Your task to perform on an android device: Search for sony triple a on walmart.com, select the first entry, add it to the cart, then select checkout. Image 0: 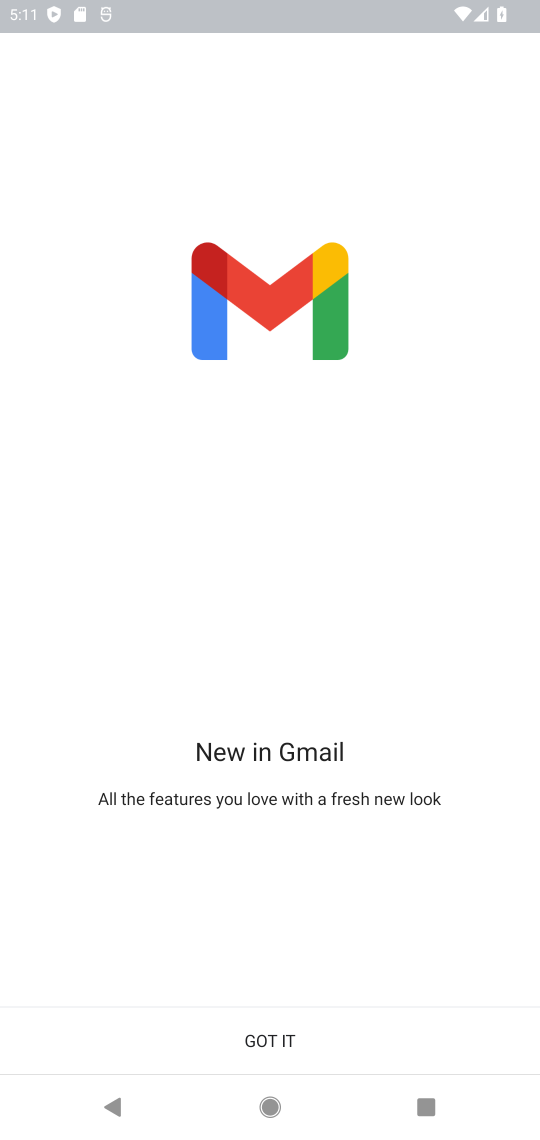
Step 0: press home button
Your task to perform on an android device: Search for sony triple a on walmart.com, select the first entry, add it to the cart, then select checkout. Image 1: 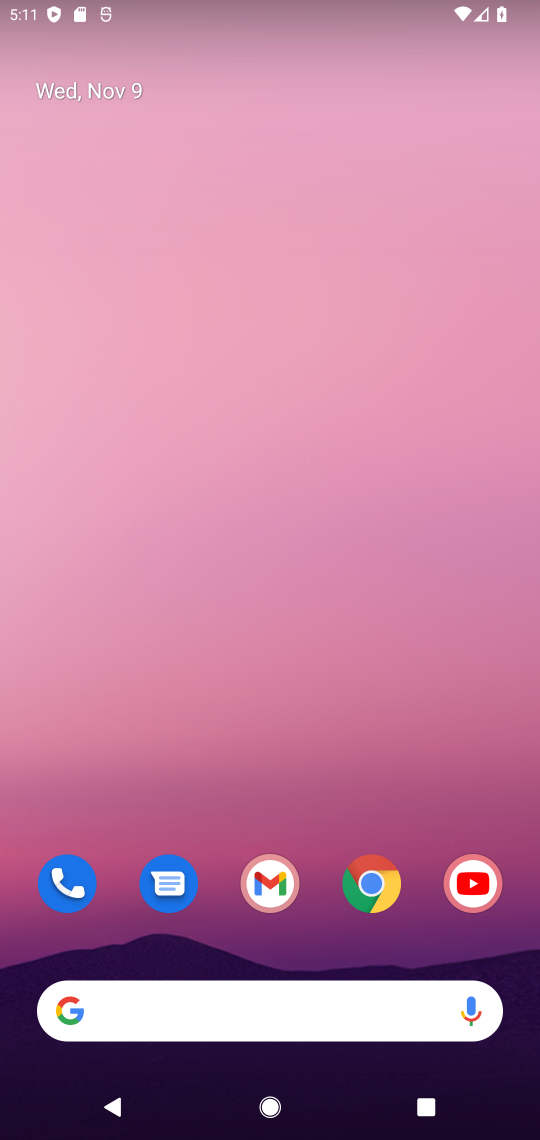
Step 1: click (343, 913)
Your task to perform on an android device: Search for sony triple a on walmart.com, select the first entry, add it to the cart, then select checkout. Image 2: 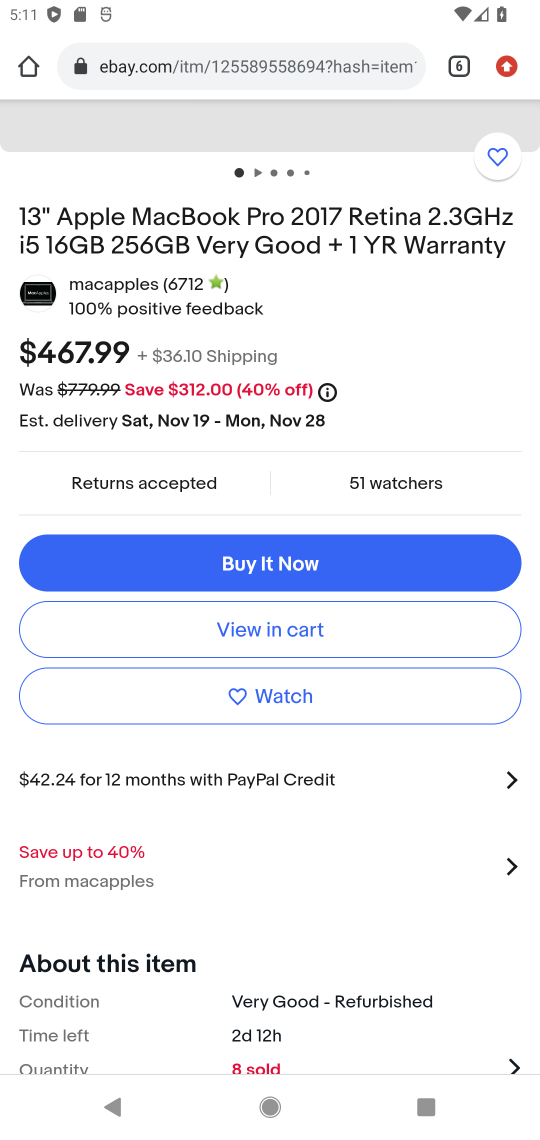
Step 2: click (461, 70)
Your task to perform on an android device: Search for sony triple a on walmart.com, select the first entry, add it to the cart, then select checkout. Image 3: 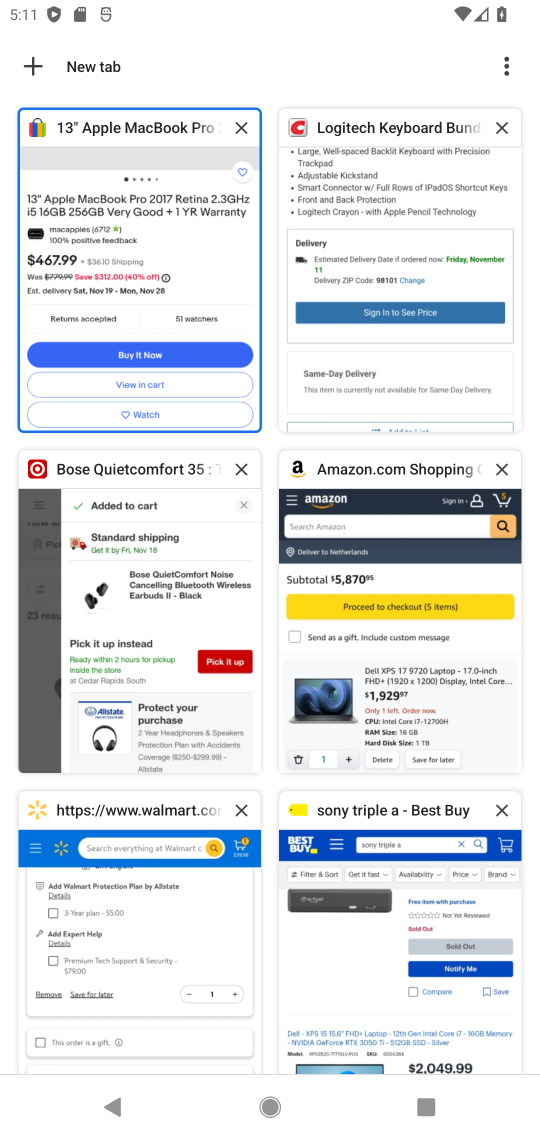
Step 3: click (167, 895)
Your task to perform on an android device: Search for sony triple a on walmart.com, select the first entry, add it to the cart, then select checkout. Image 4: 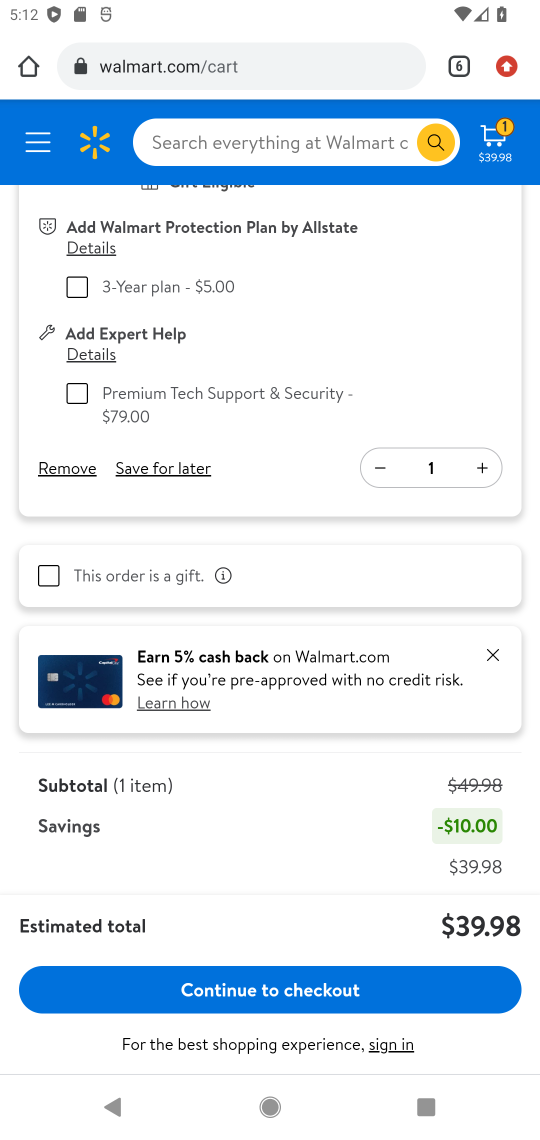
Step 4: click (67, 472)
Your task to perform on an android device: Search for sony triple a on walmart.com, select the first entry, add it to the cart, then select checkout. Image 5: 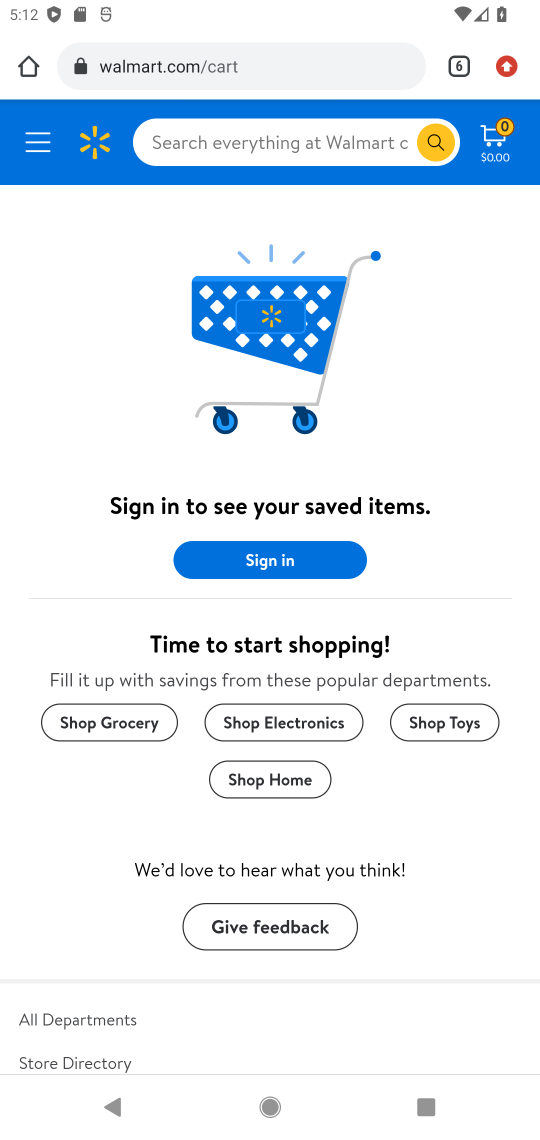
Step 5: click (340, 140)
Your task to perform on an android device: Search for sony triple a on walmart.com, select the first entry, add it to the cart, then select checkout. Image 6: 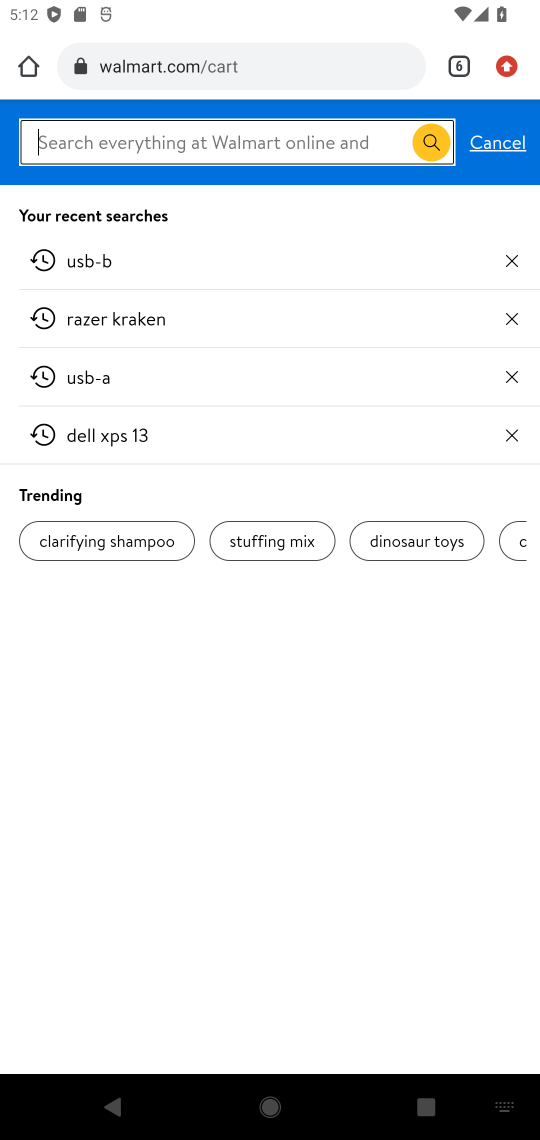
Step 6: type "sony triple a battery"
Your task to perform on an android device: Search for sony triple a on walmart.com, select the first entry, add it to the cart, then select checkout. Image 7: 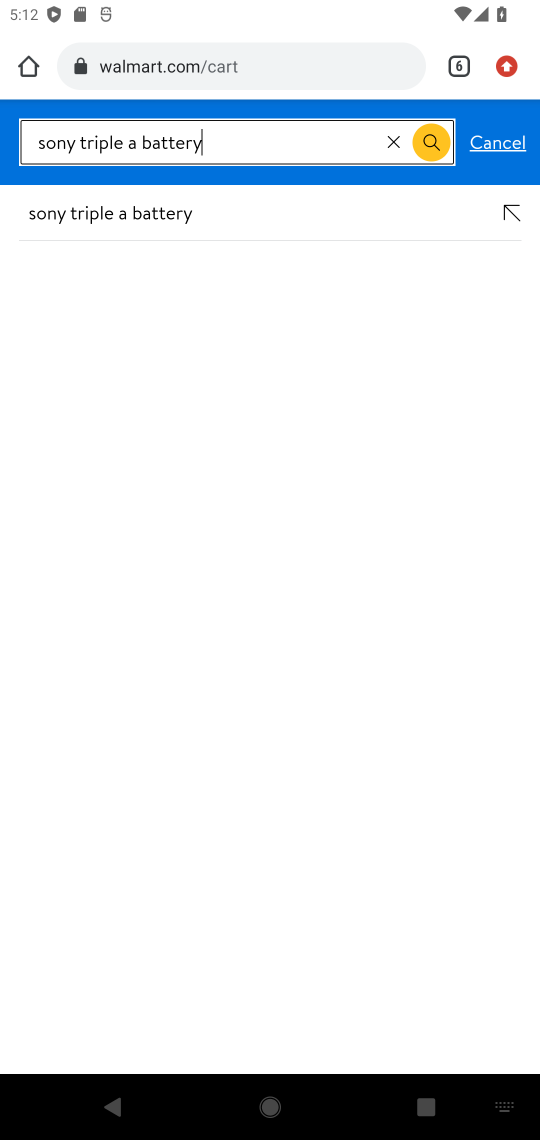
Step 7: click (128, 212)
Your task to perform on an android device: Search for sony triple a on walmart.com, select the first entry, add it to the cart, then select checkout. Image 8: 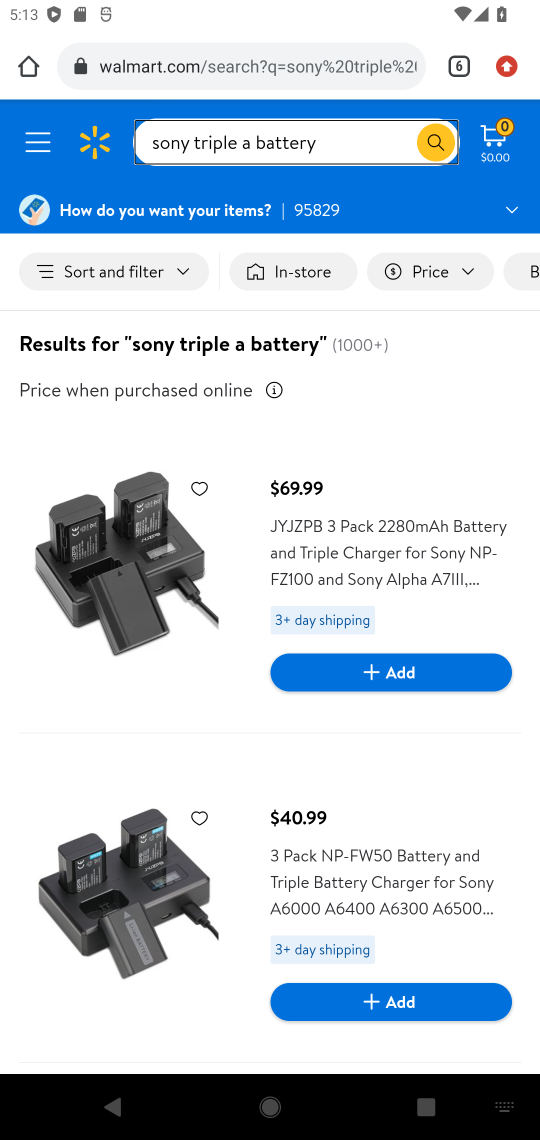
Step 8: drag from (233, 957) to (381, 359)
Your task to perform on an android device: Search for sony triple a on walmart.com, select the first entry, add it to the cart, then select checkout. Image 9: 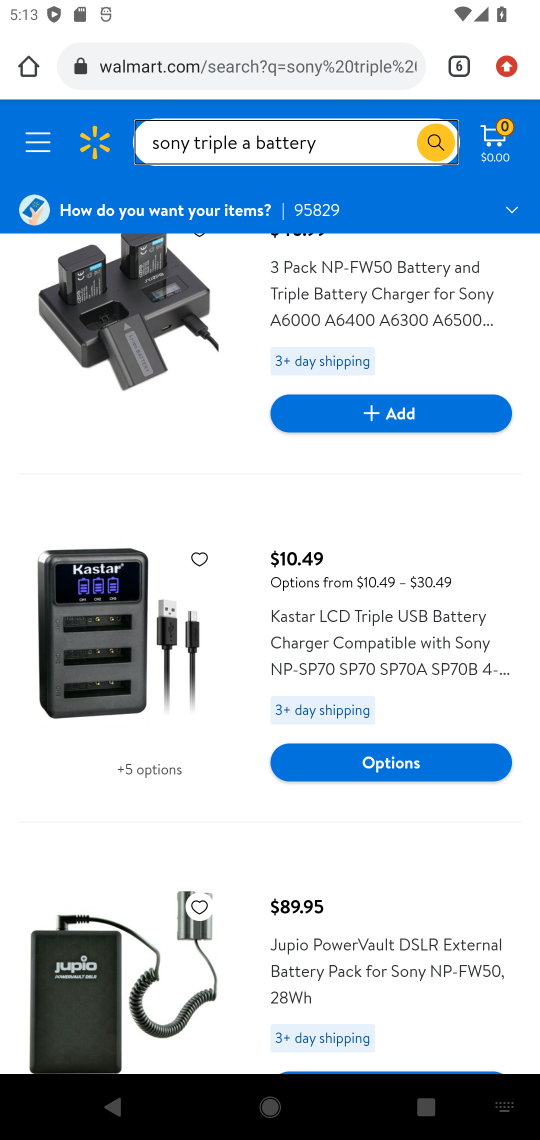
Step 9: drag from (414, 871) to (435, 405)
Your task to perform on an android device: Search for sony triple a on walmart.com, select the first entry, add it to the cart, then select checkout. Image 10: 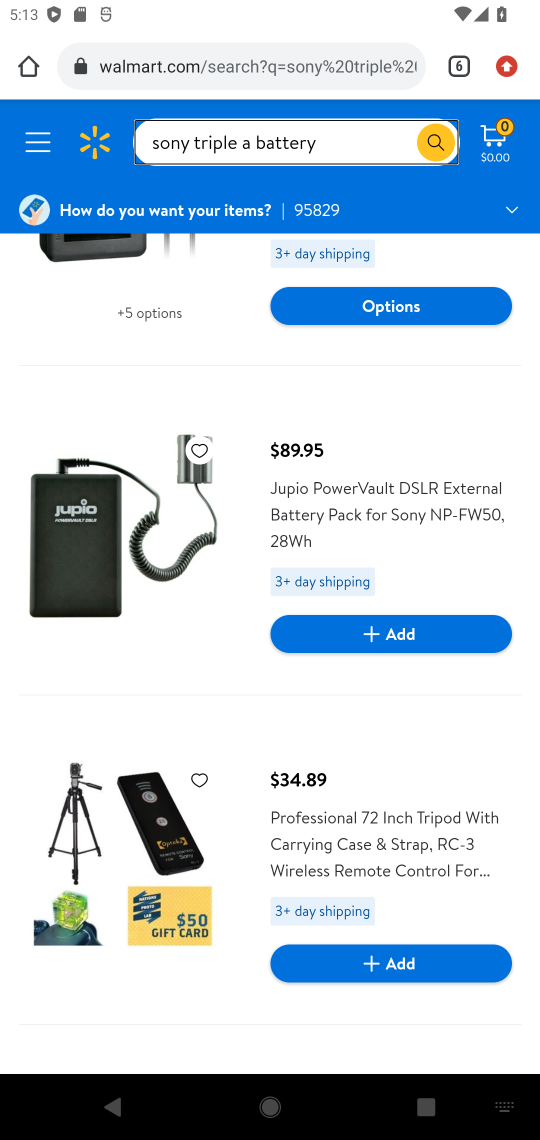
Step 10: drag from (220, 985) to (370, 273)
Your task to perform on an android device: Search for sony triple a on walmart.com, select the first entry, add it to the cart, then select checkout. Image 11: 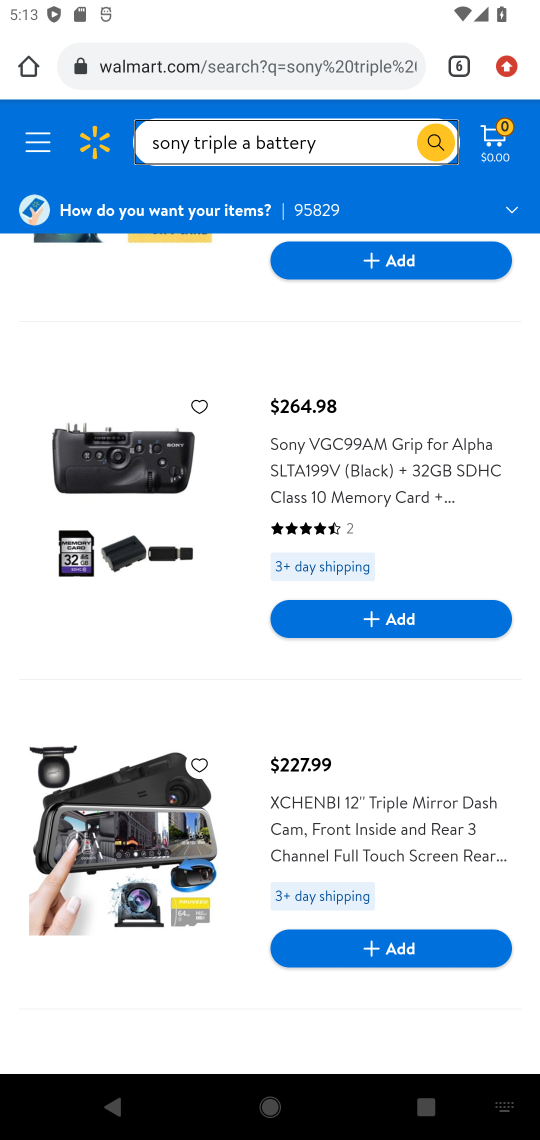
Step 11: click (331, 231)
Your task to perform on an android device: Search for sony triple a on walmart.com, select the first entry, add it to the cart, then select checkout. Image 12: 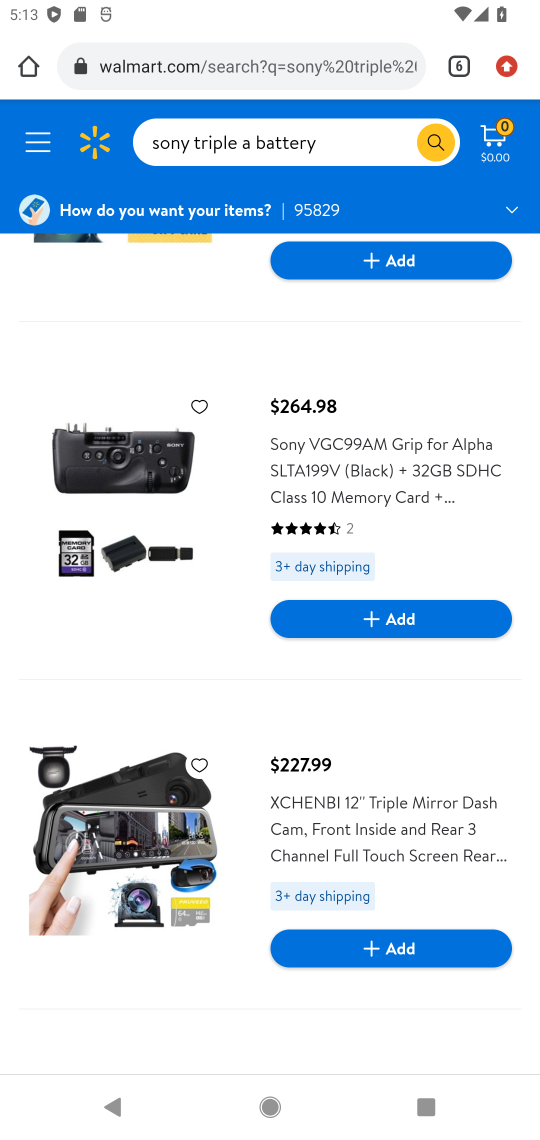
Step 12: task complete